Your task to perform on an android device: Open ESPN.com Image 0: 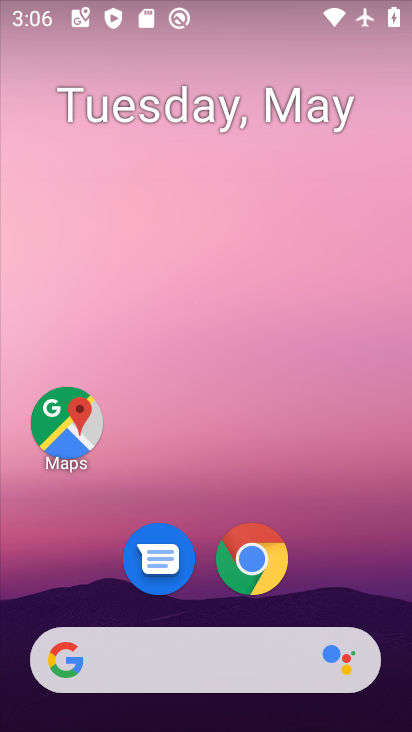
Step 0: click (260, 569)
Your task to perform on an android device: Open ESPN.com Image 1: 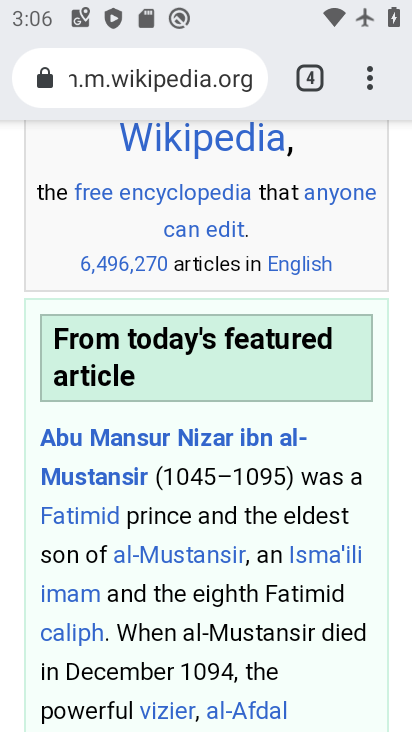
Step 1: drag from (371, 77) to (294, 146)
Your task to perform on an android device: Open ESPN.com Image 2: 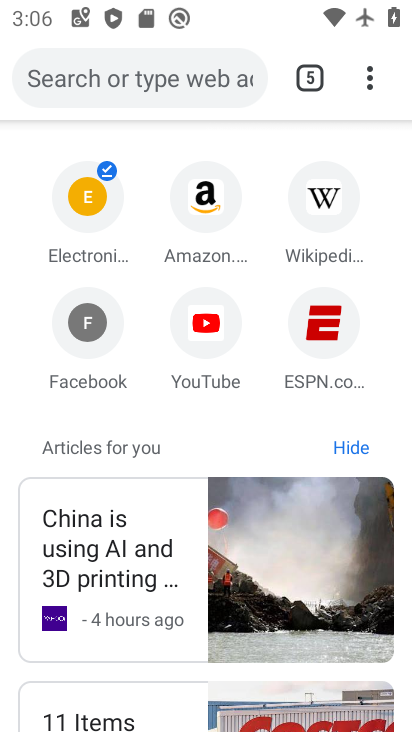
Step 2: click (316, 335)
Your task to perform on an android device: Open ESPN.com Image 3: 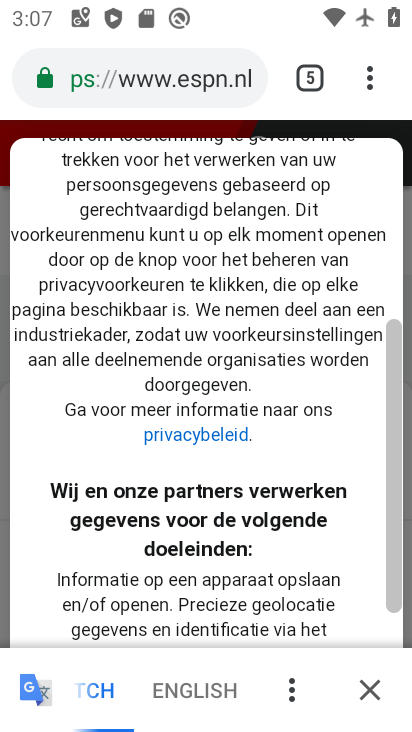
Step 3: task complete